Your task to perform on an android device: turn on the 12-hour format for clock Image 0: 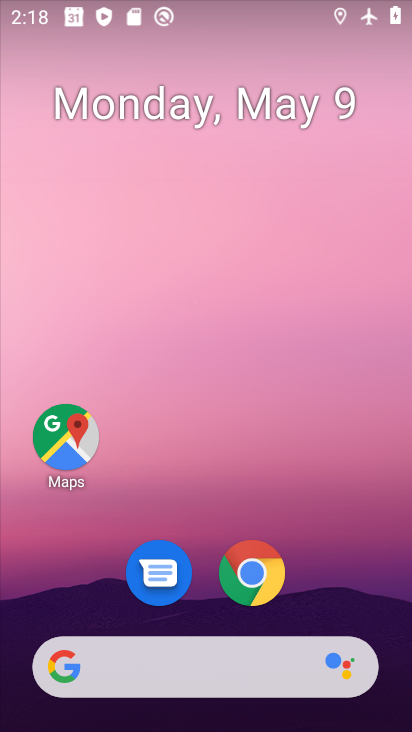
Step 0: drag from (263, 308) to (214, 79)
Your task to perform on an android device: turn on the 12-hour format for clock Image 1: 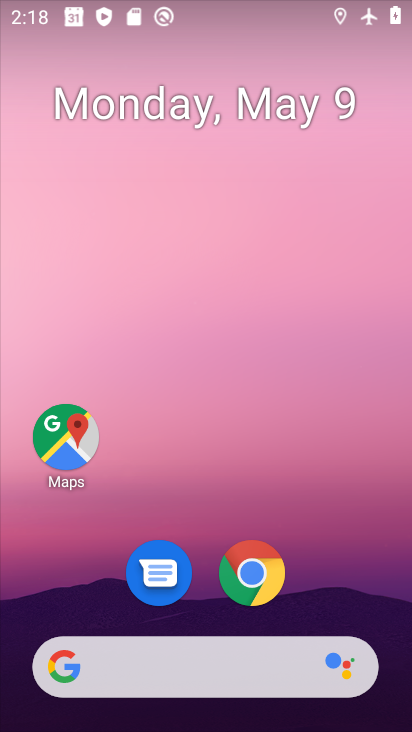
Step 1: click (204, 63)
Your task to perform on an android device: turn on the 12-hour format for clock Image 2: 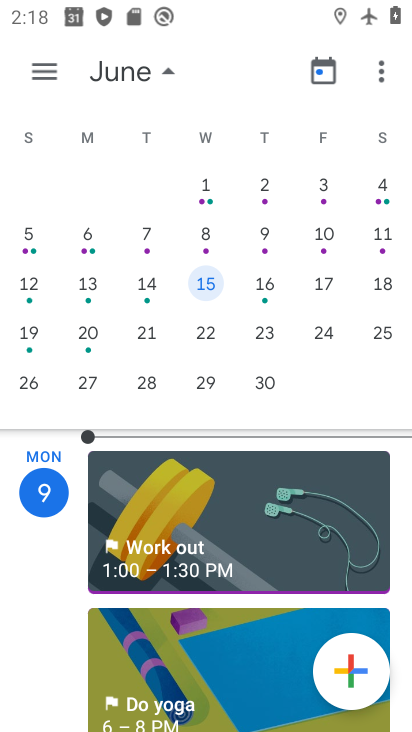
Step 2: drag from (334, 617) to (119, 17)
Your task to perform on an android device: turn on the 12-hour format for clock Image 3: 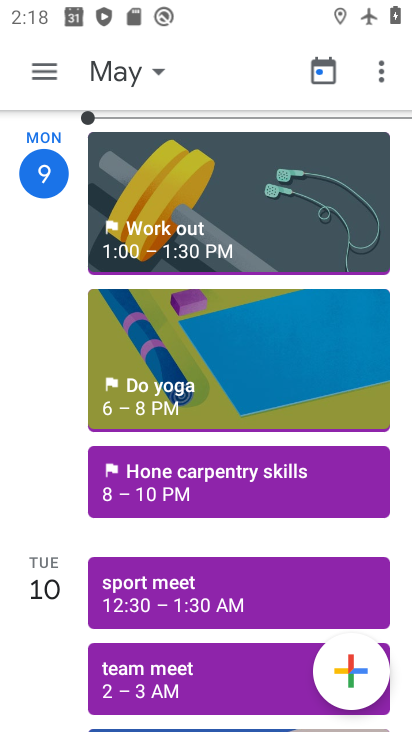
Step 3: press home button
Your task to perform on an android device: turn on the 12-hour format for clock Image 4: 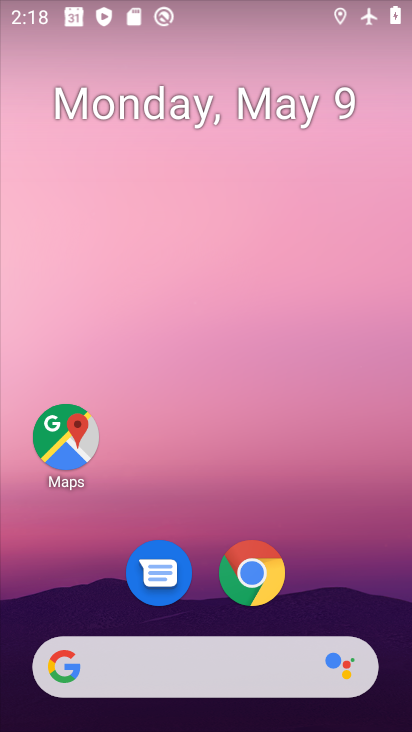
Step 4: drag from (357, 620) to (129, 20)
Your task to perform on an android device: turn on the 12-hour format for clock Image 5: 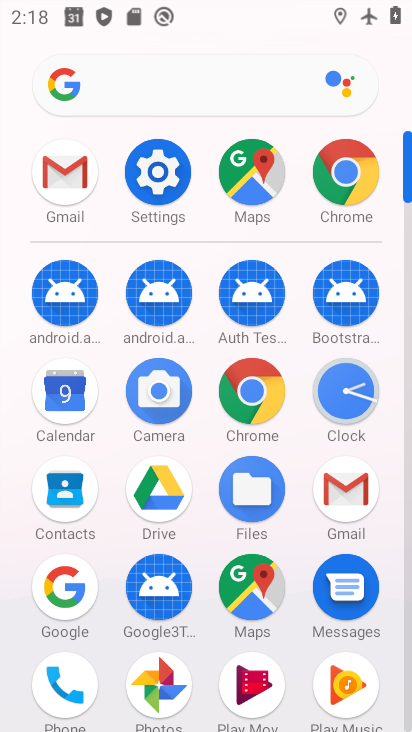
Step 5: click (354, 385)
Your task to perform on an android device: turn on the 12-hour format for clock Image 6: 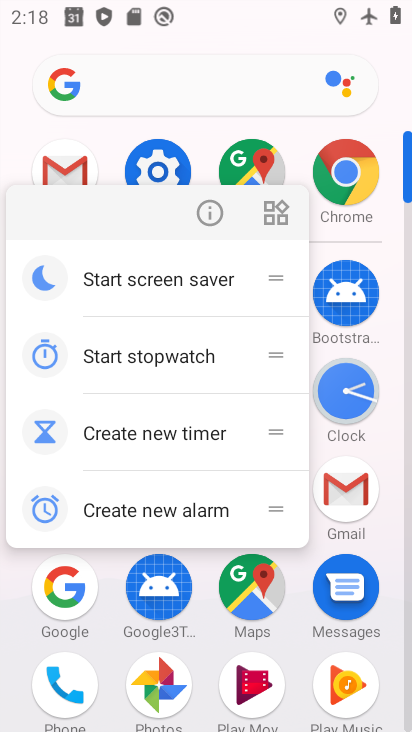
Step 6: click (349, 379)
Your task to perform on an android device: turn on the 12-hour format for clock Image 7: 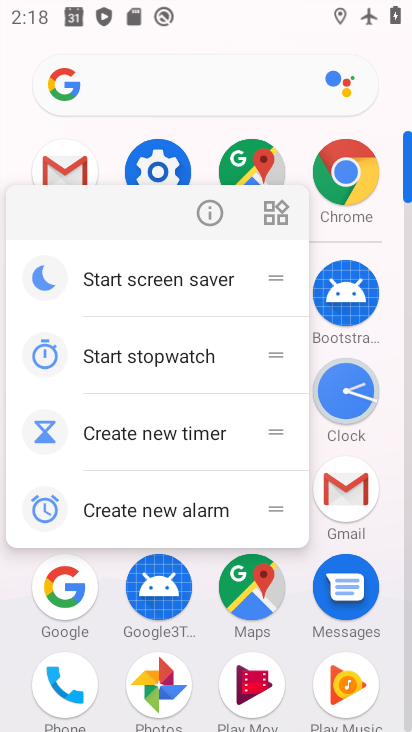
Step 7: click (346, 378)
Your task to perform on an android device: turn on the 12-hour format for clock Image 8: 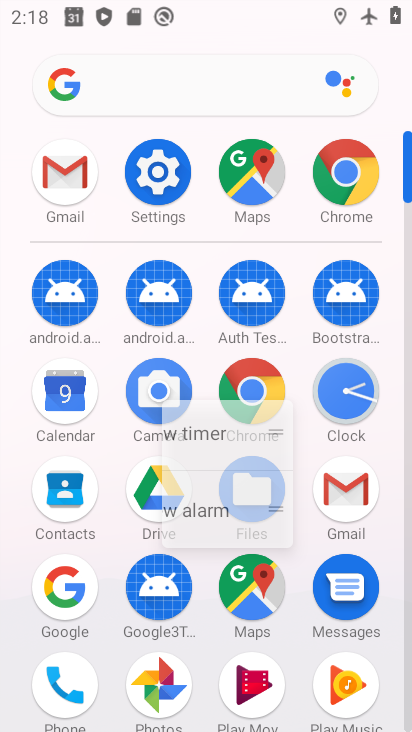
Step 8: click (346, 378)
Your task to perform on an android device: turn on the 12-hour format for clock Image 9: 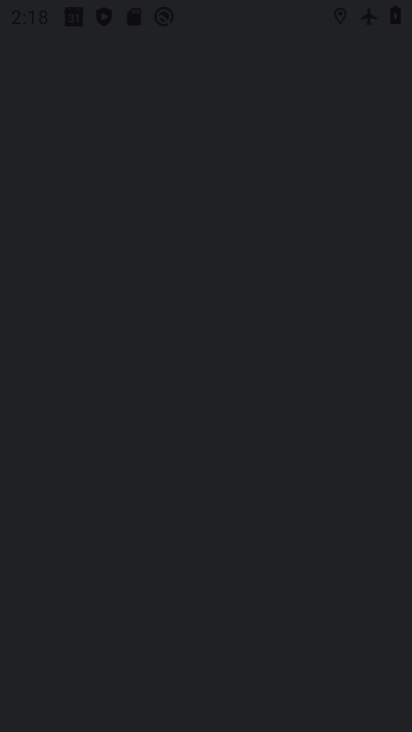
Step 9: click (342, 379)
Your task to perform on an android device: turn on the 12-hour format for clock Image 10: 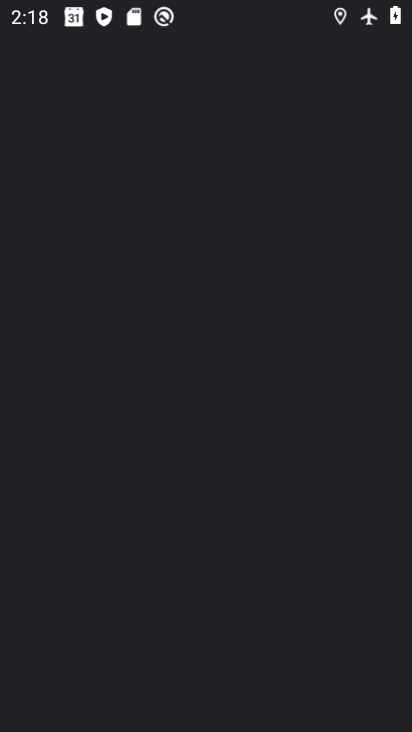
Step 10: click (341, 380)
Your task to perform on an android device: turn on the 12-hour format for clock Image 11: 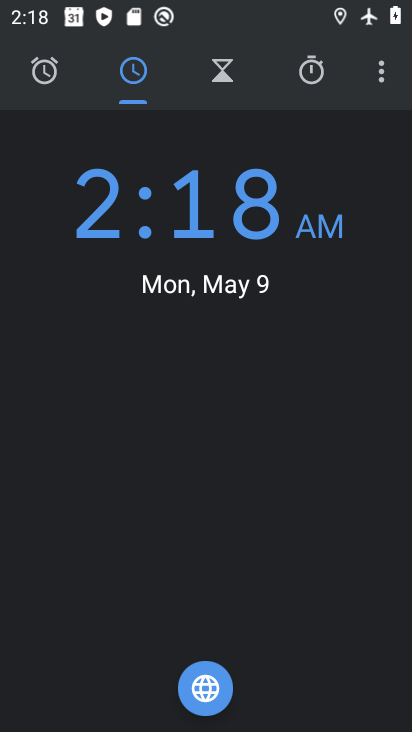
Step 11: click (382, 84)
Your task to perform on an android device: turn on the 12-hour format for clock Image 12: 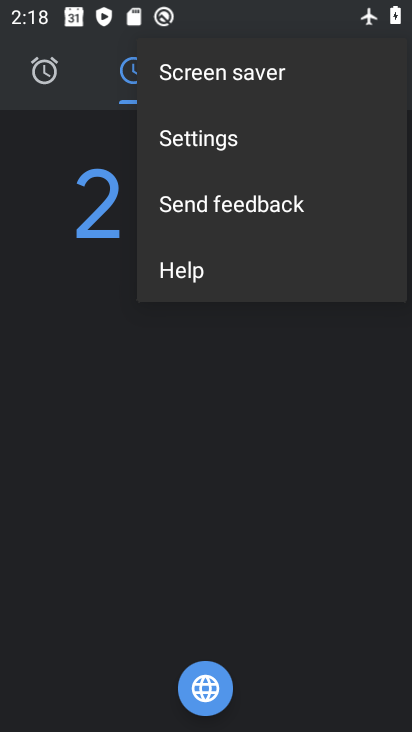
Step 12: click (196, 141)
Your task to perform on an android device: turn on the 12-hour format for clock Image 13: 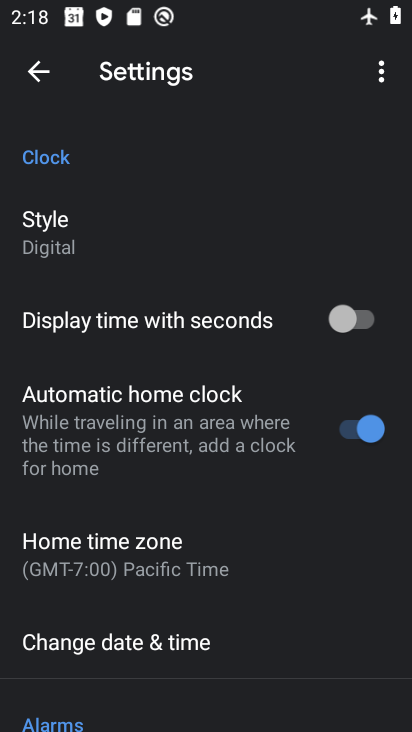
Step 13: drag from (130, 649) to (183, 164)
Your task to perform on an android device: turn on the 12-hour format for clock Image 14: 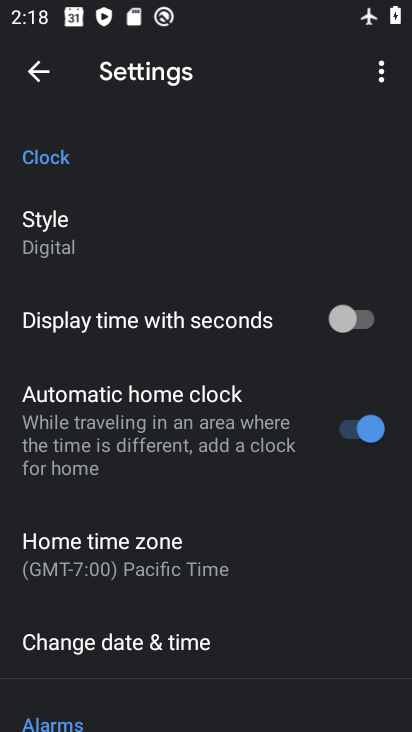
Step 14: click (150, 647)
Your task to perform on an android device: turn on the 12-hour format for clock Image 15: 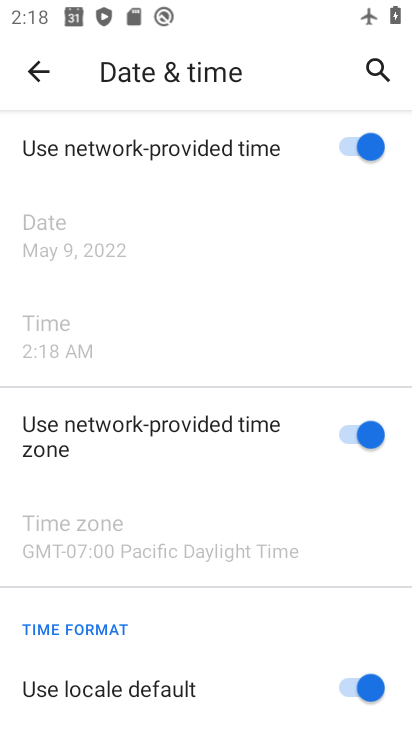
Step 15: task complete